Your task to perform on an android device: check out phone information Image 0: 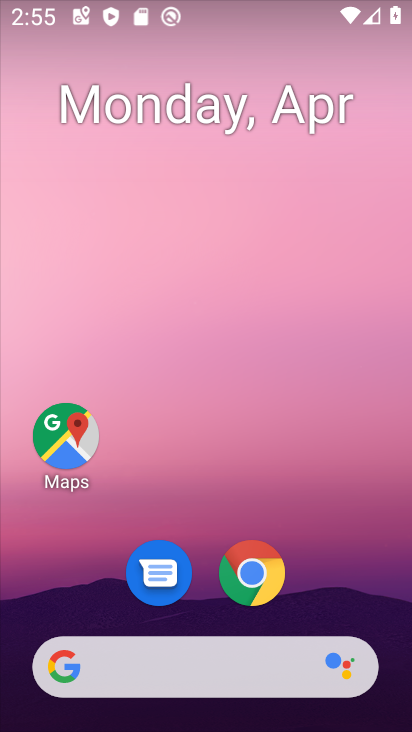
Step 0: drag from (371, 586) to (377, 149)
Your task to perform on an android device: check out phone information Image 1: 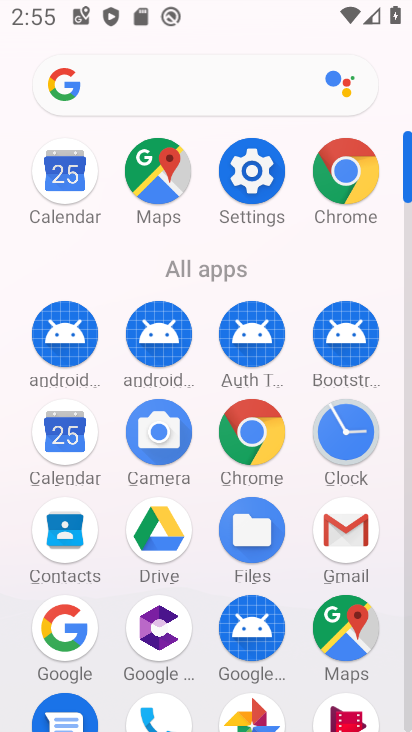
Step 1: drag from (393, 514) to (384, 291)
Your task to perform on an android device: check out phone information Image 2: 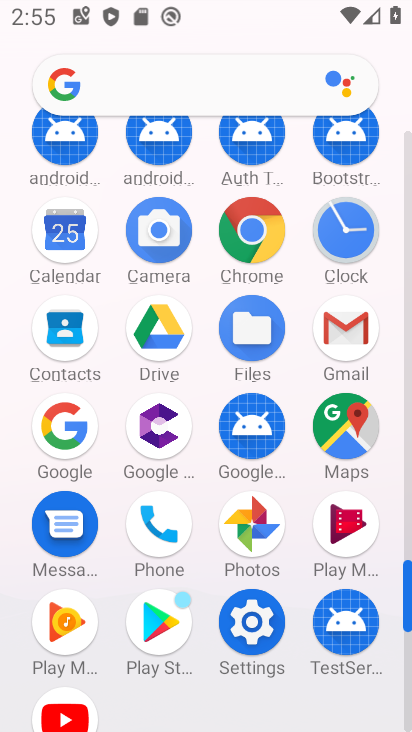
Step 2: click (163, 535)
Your task to perform on an android device: check out phone information Image 3: 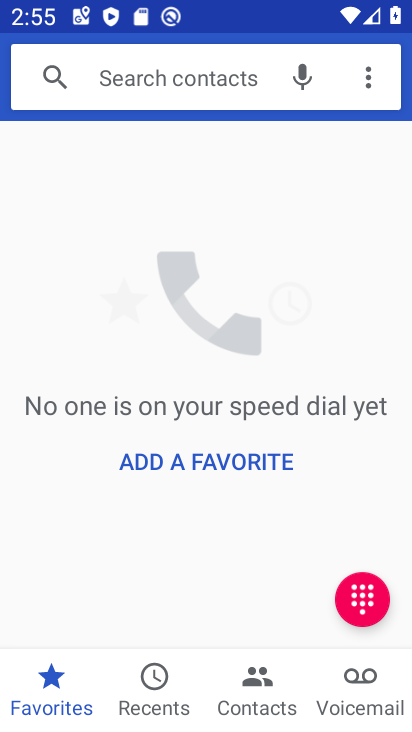
Step 3: click (159, 689)
Your task to perform on an android device: check out phone information Image 4: 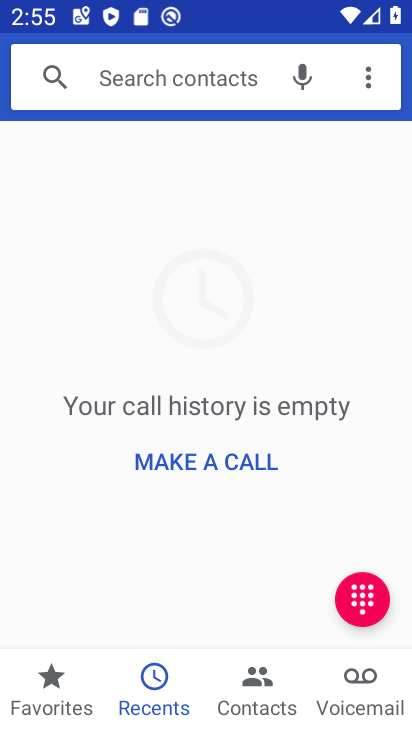
Step 4: task complete